Your task to perform on an android device: Open battery settings Image 0: 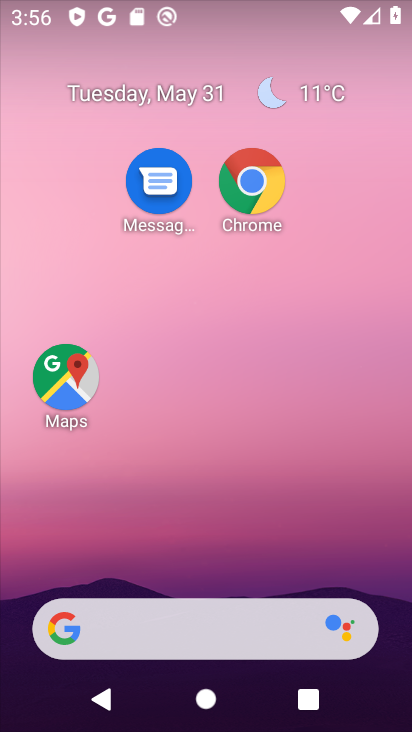
Step 0: drag from (190, 549) to (379, 22)
Your task to perform on an android device: Open battery settings Image 1: 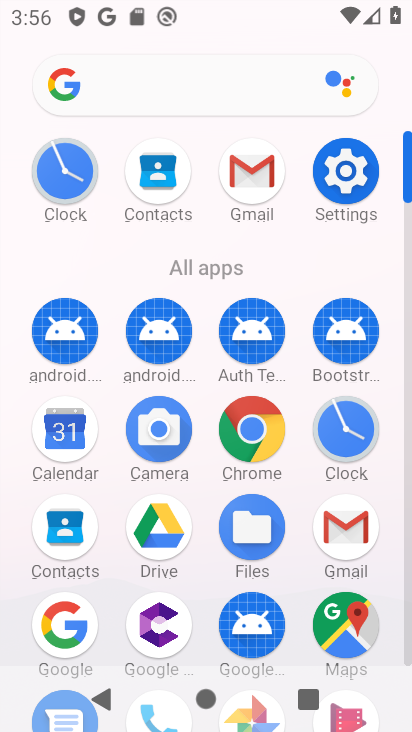
Step 1: click (345, 174)
Your task to perform on an android device: Open battery settings Image 2: 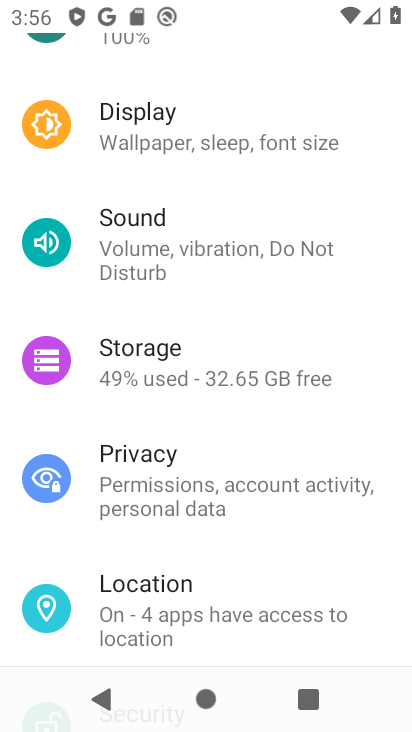
Step 2: drag from (226, 296) to (233, 459)
Your task to perform on an android device: Open battery settings Image 3: 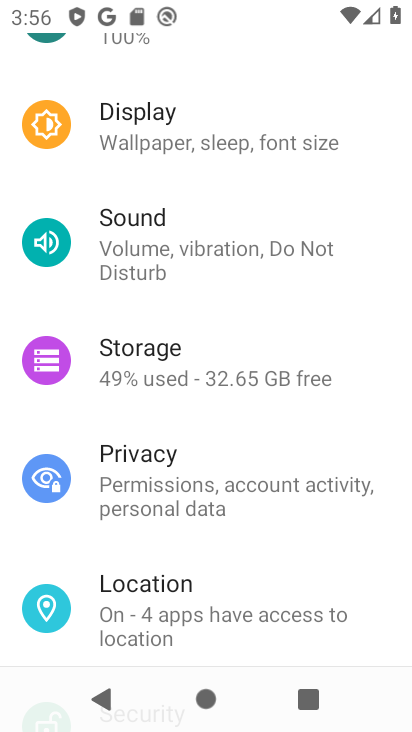
Step 3: click (116, 50)
Your task to perform on an android device: Open battery settings Image 4: 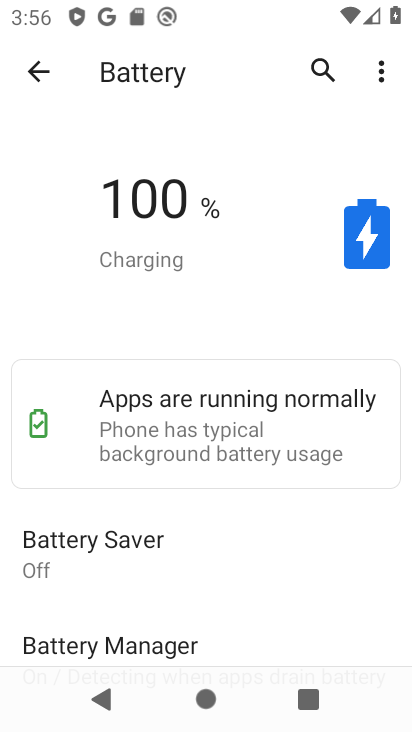
Step 4: task complete